Your task to perform on an android device: Set the phone to "Do not disturb". Image 0: 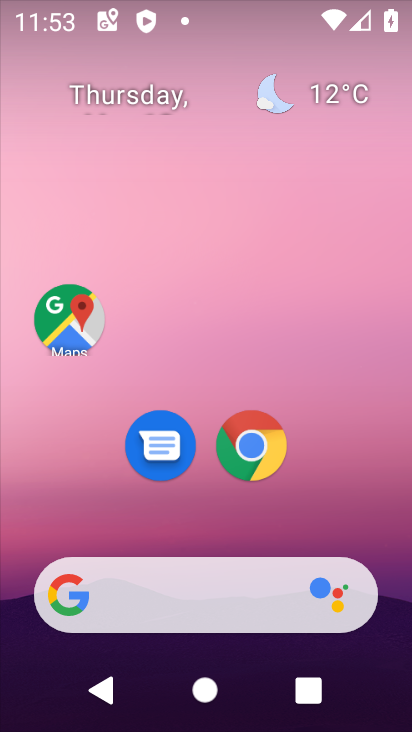
Step 0: drag from (181, 579) to (79, 31)
Your task to perform on an android device: Set the phone to "Do not disturb". Image 1: 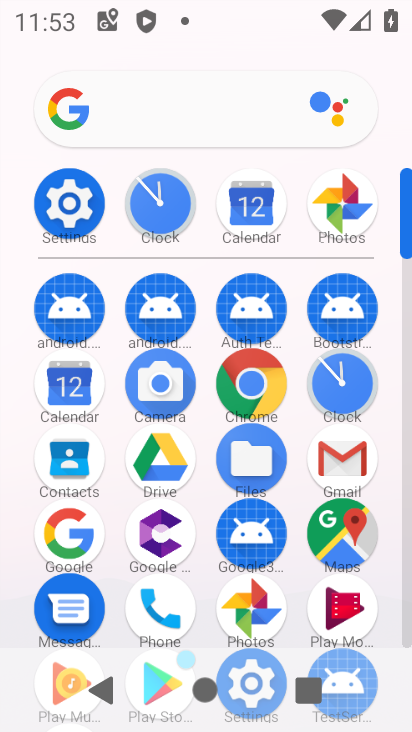
Step 1: click (60, 214)
Your task to perform on an android device: Set the phone to "Do not disturb". Image 2: 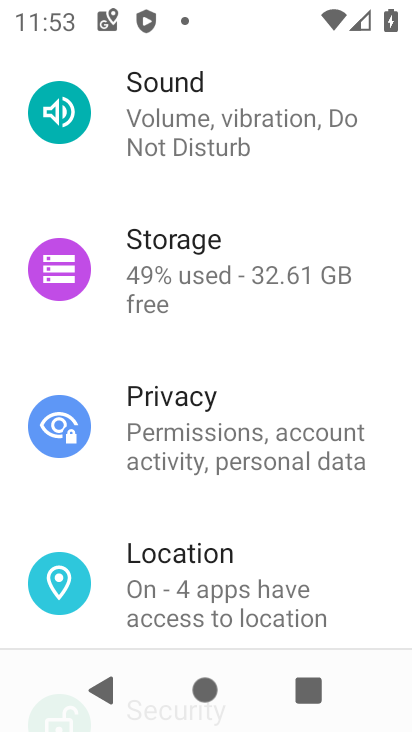
Step 2: click (158, 101)
Your task to perform on an android device: Set the phone to "Do not disturb". Image 3: 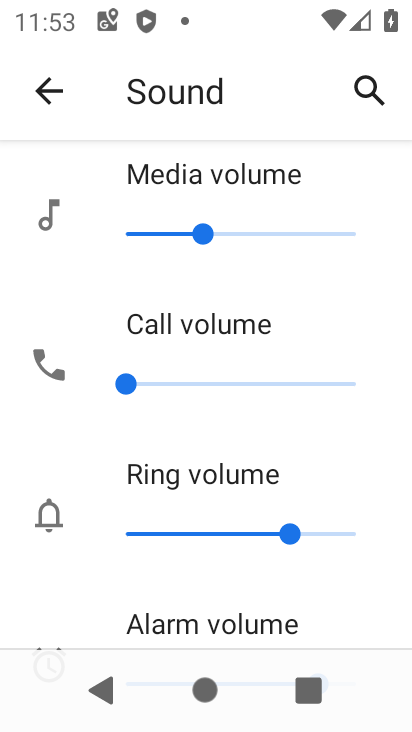
Step 3: drag from (222, 608) to (218, 181)
Your task to perform on an android device: Set the phone to "Do not disturb". Image 4: 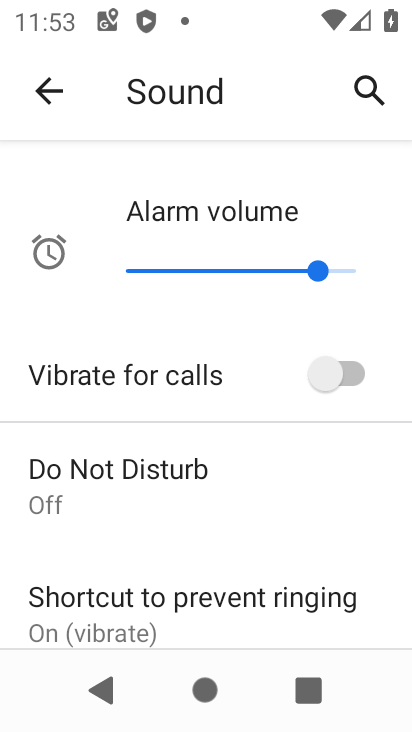
Step 4: click (151, 475)
Your task to perform on an android device: Set the phone to "Do not disturb". Image 5: 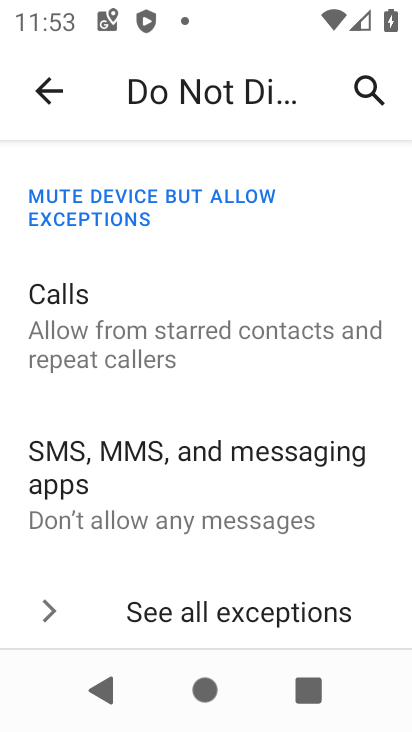
Step 5: drag from (168, 597) to (169, 218)
Your task to perform on an android device: Set the phone to "Do not disturb". Image 6: 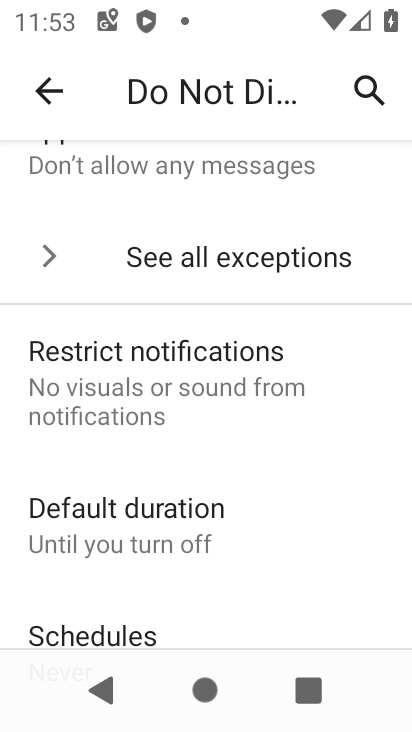
Step 6: drag from (208, 510) to (278, 9)
Your task to perform on an android device: Set the phone to "Do not disturb". Image 7: 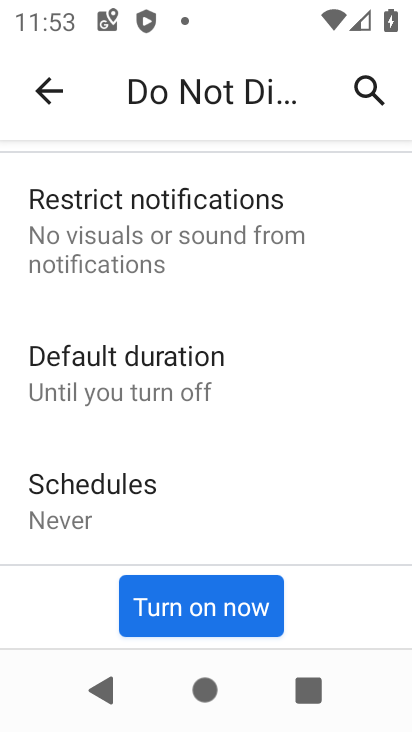
Step 7: click (181, 596)
Your task to perform on an android device: Set the phone to "Do not disturb". Image 8: 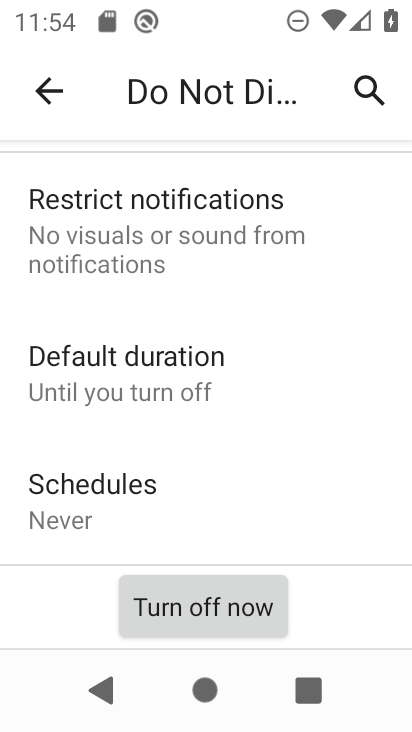
Step 8: task complete